Your task to perform on an android device: turn off sleep mode Image 0: 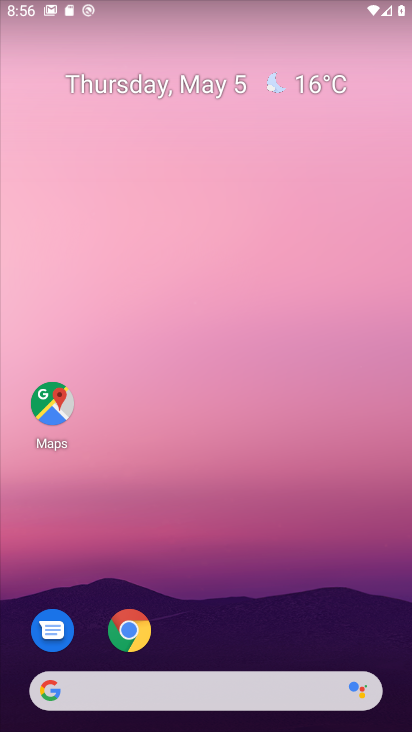
Step 0: drag from (358, 607) to (332, 54)
Your task to perform on an android device: turn off sleep mode Image 1: 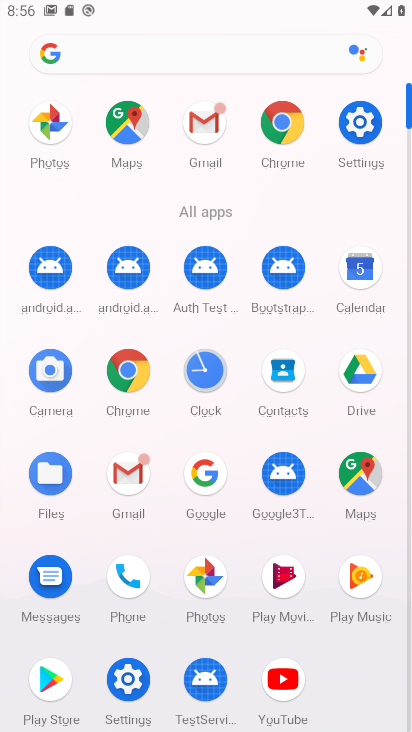
Step 1: click (354, 124)
Your task to perform on an android device: turn off sleep mode Image 2: 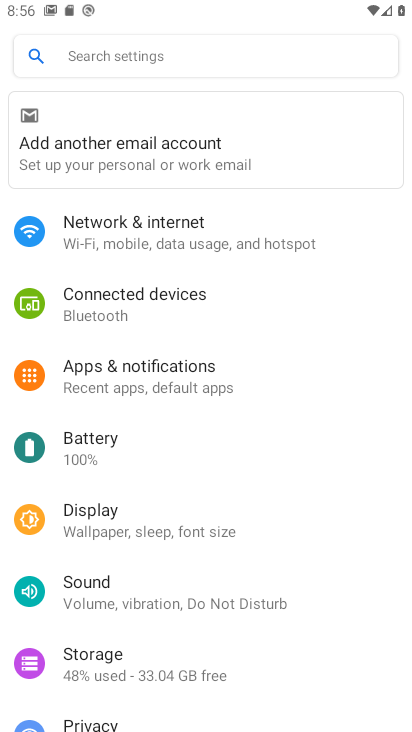
Step 2: click (136, 518)
Your task to perform on an android device: turn off sleep mode Image 3: 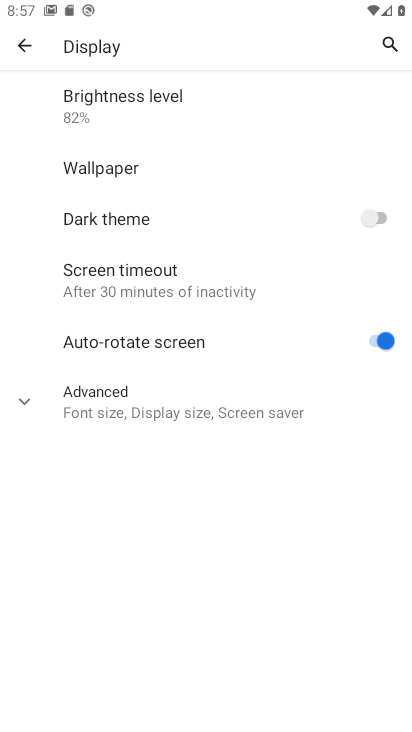
Step 3: click (94, 268)
Your task to perform on an android device: turn off sleep mode Image 4: 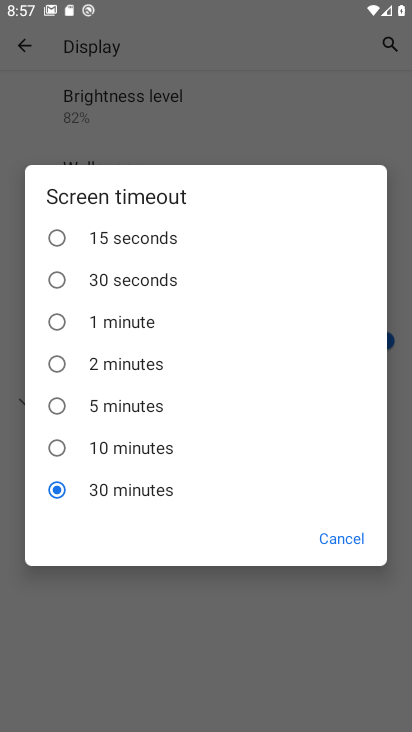
Step 4: click (58, 283)
Your task to perform on an android device: turn off sleep mode Image 5: 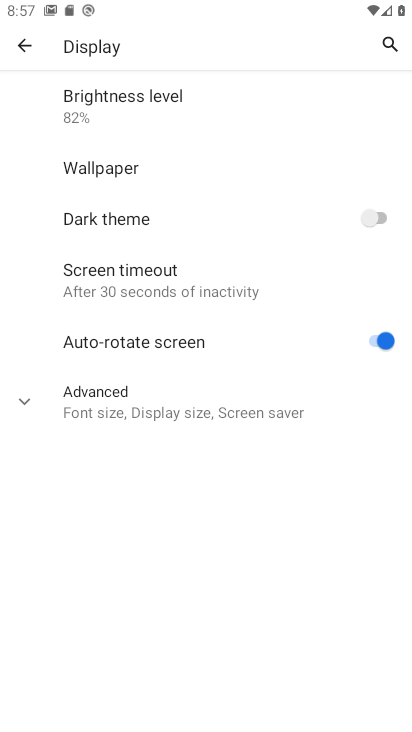
Step 5: task complete